Your task to perform on an android device: Go to Amazon Image 0: 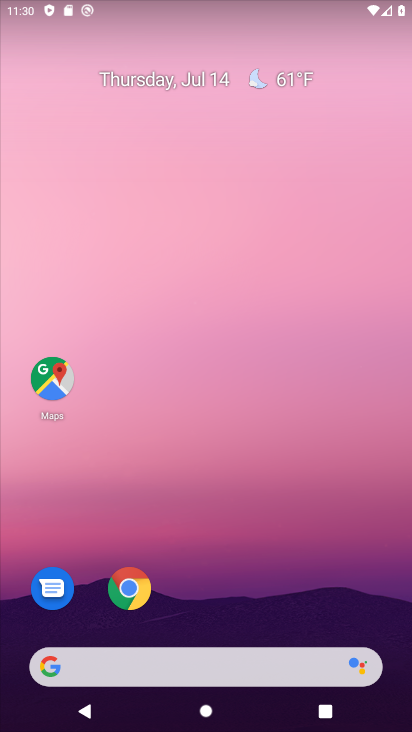
Step 0: drag from (192, 638) to (315, 89)
Your task to perform on an android device: Go to Amazon Image 1: 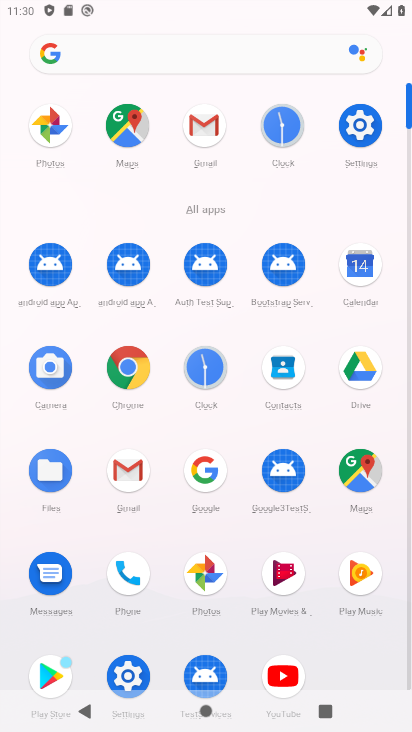
Step 1: click (126, 387)
Your task to perform on an android device: Go to Amazon Image 2: 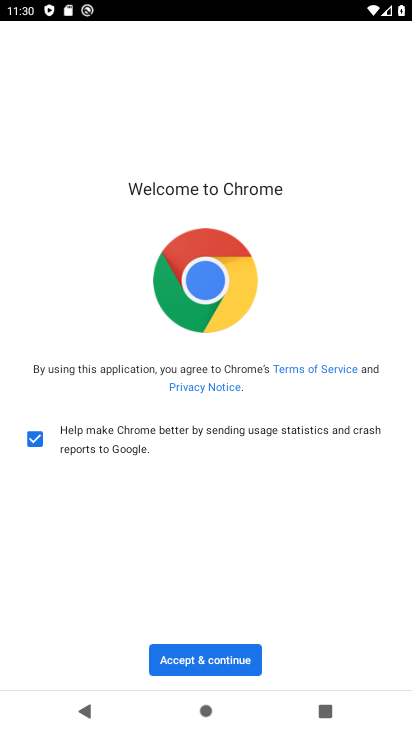
Step 2: click (215, 651)
Your task to perform on an android device: Go to Amazon Image 3: 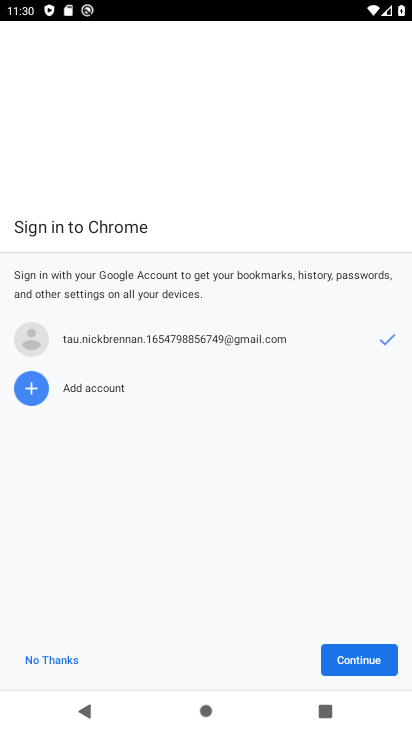
Step 3: click (355, 653)
Your task to perform on an android device: Go to Amazon Image 4: 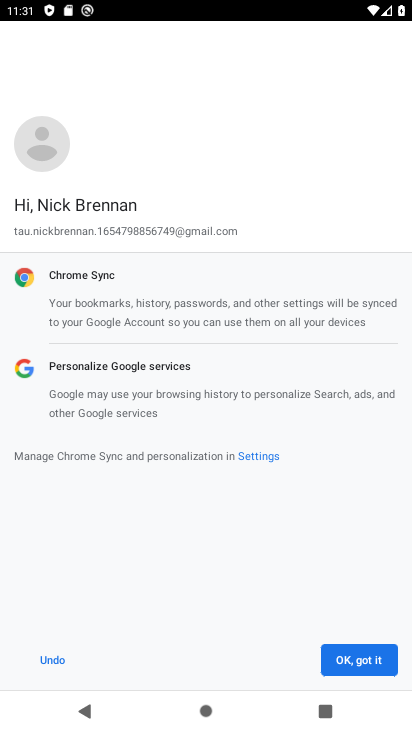
Step 4: click (378, 665)
Your task to perform on an android device: Go to Amazon Image 5: 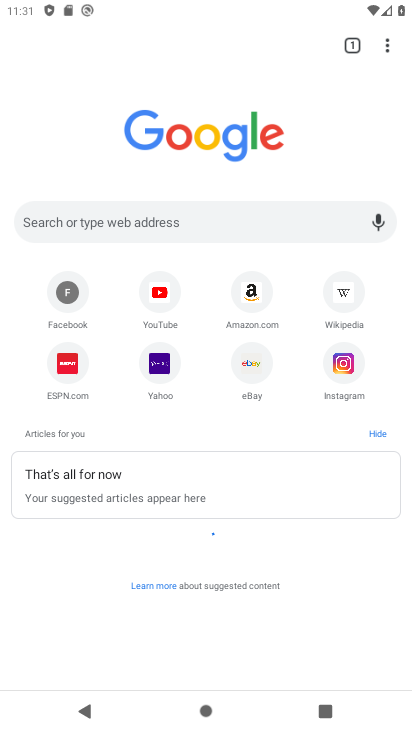
Step 5: click (256, 300)
Your task to perform on an android device: Go to Amazon Image 6: 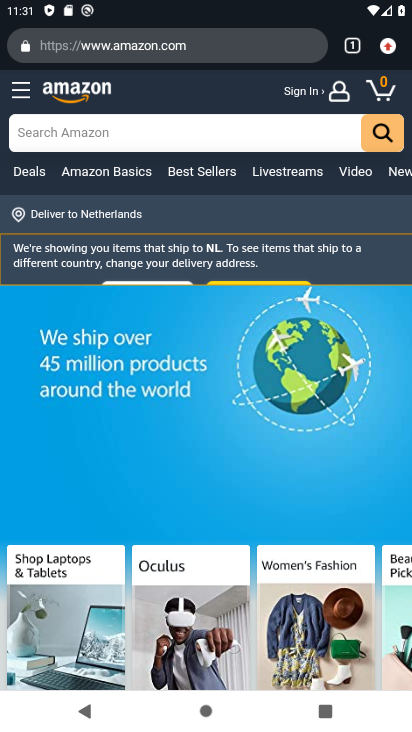
Step 6: task complete